Your task to perform on an android device: Search for Italian restaurants on Maps Image 0: 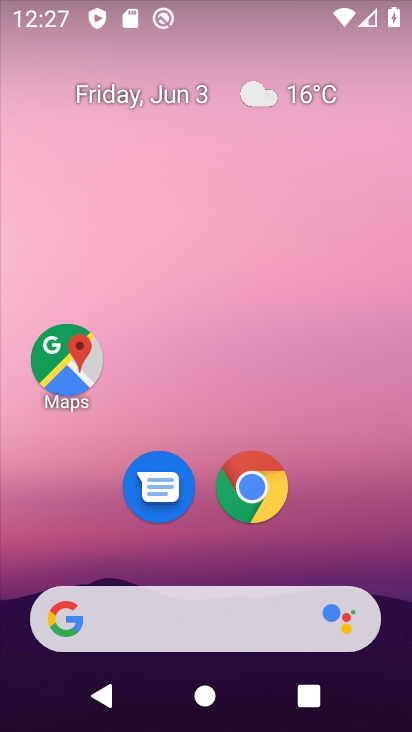
Step 0: click (76, 379)
Your task to perform on an android device: Search for Italian restaurants on Maps Image 1: 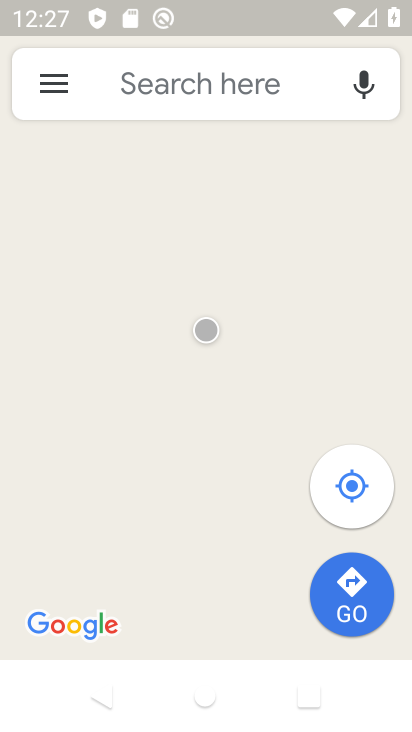
Step 1: click (173, 73)
Your task to perform on an android device: Search for Italian restaurants on Maps Image 2: 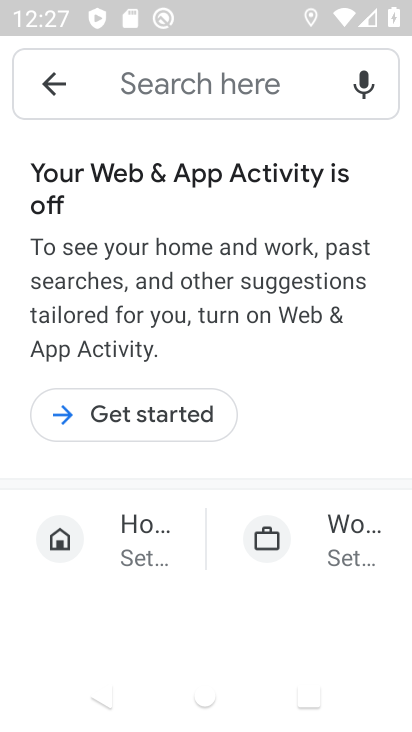
Step 2: click (180, 103)
Your task to perform on an android device: Search for Italian restaurants on Maps Image 3: 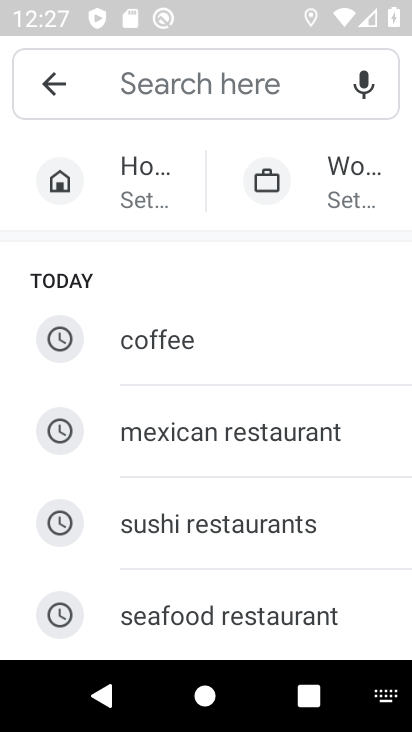
Step 3: type "italian rstaiurants"
Your task to perform on an android device: Search for Italian restaurants on Maps Image 4: 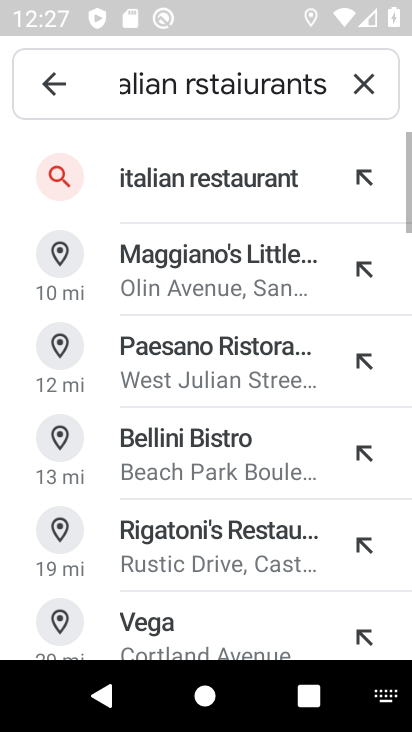
Step 4: click (208, 181)
Your task to perform on an android device: Search for Italian restaurants on Maps Image 5: 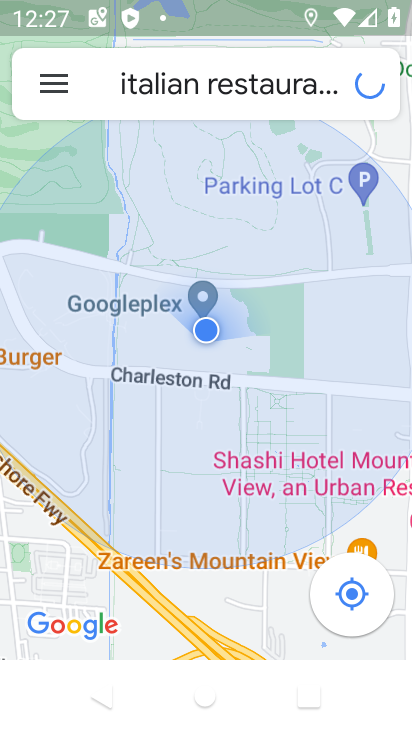
Step 5: task complete